Your task to perform on an android device: Add "acer predator" to the cart on newegg.com, then select checkout. Image 0: 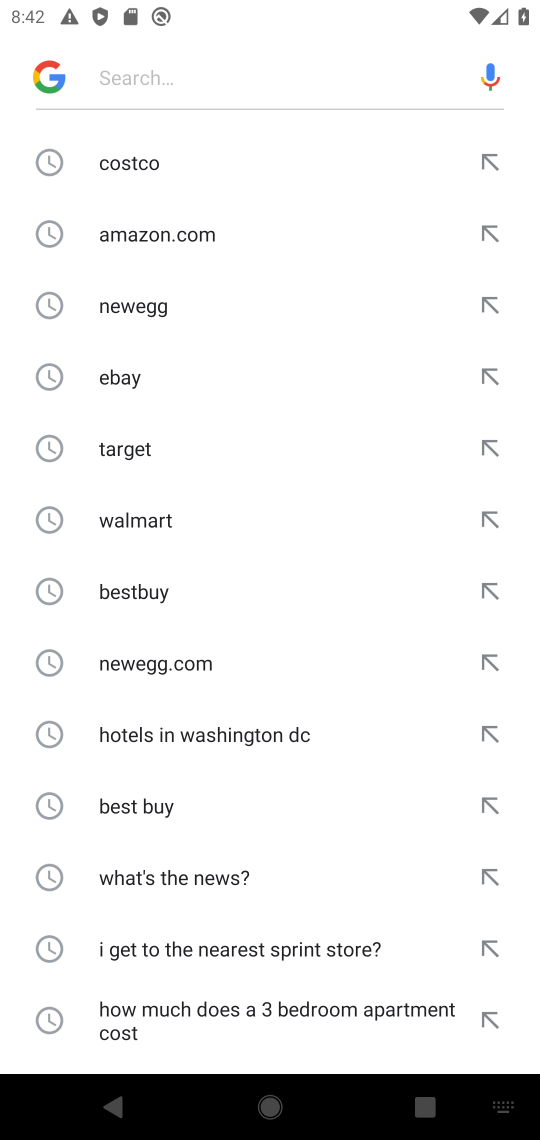
Step 0: press home button
Your task to perform on an android device: Add "acer predator" to the cart on newegg.com, then select checkout. Image 1: 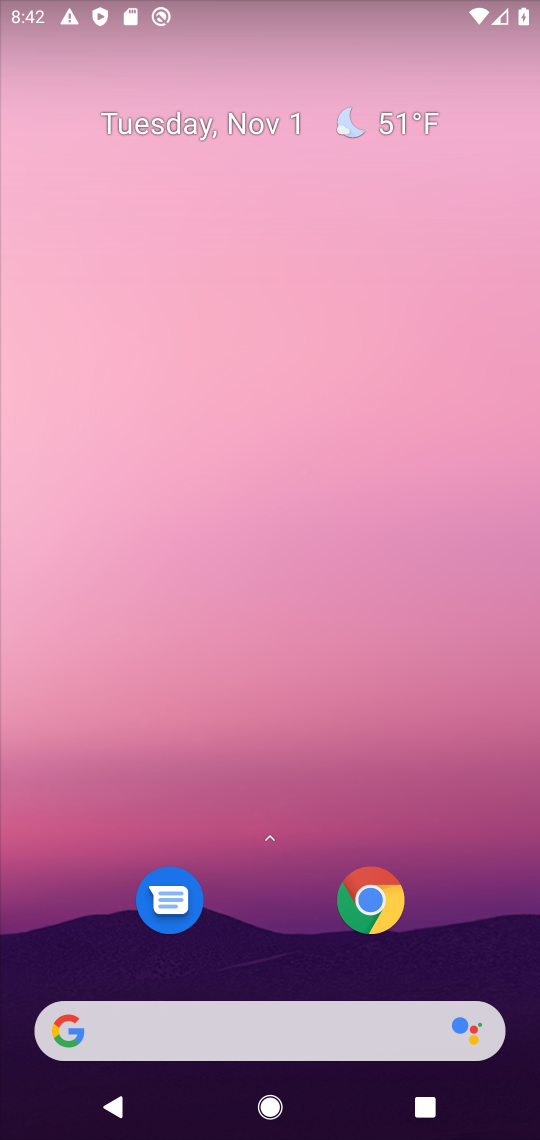
Step 1: drag from (340, 1074) to (435, 49)
Your task to perform on an android device: Add "acer predator" to the cart on newegg.com, then select checkout. Image 2: 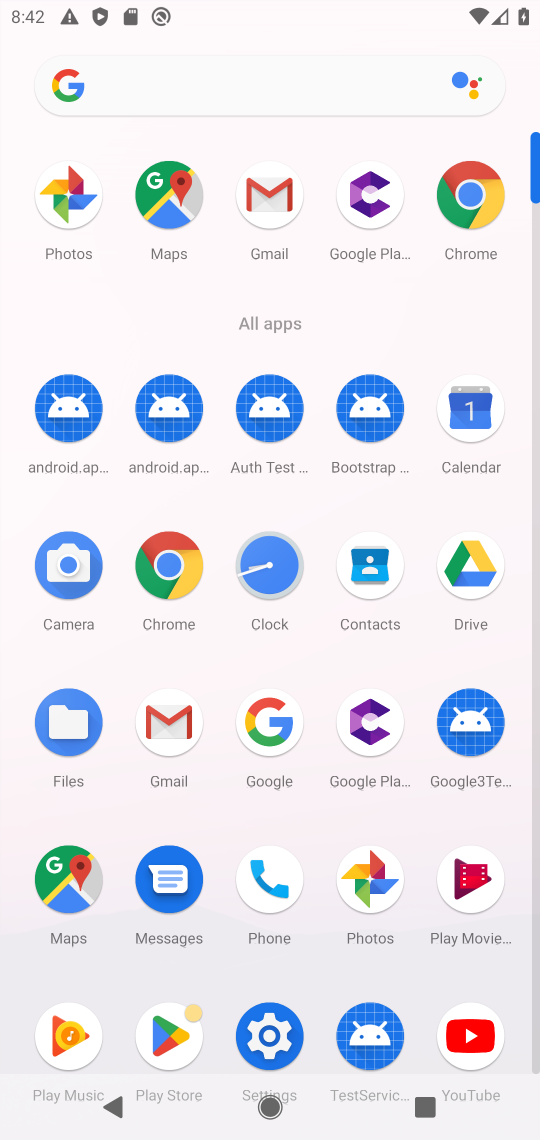
Step 2: click (160, 552)
Your task to perform on an android device: Add "acer predator" to the cart on newegg.com, then select checkout. Image 3: 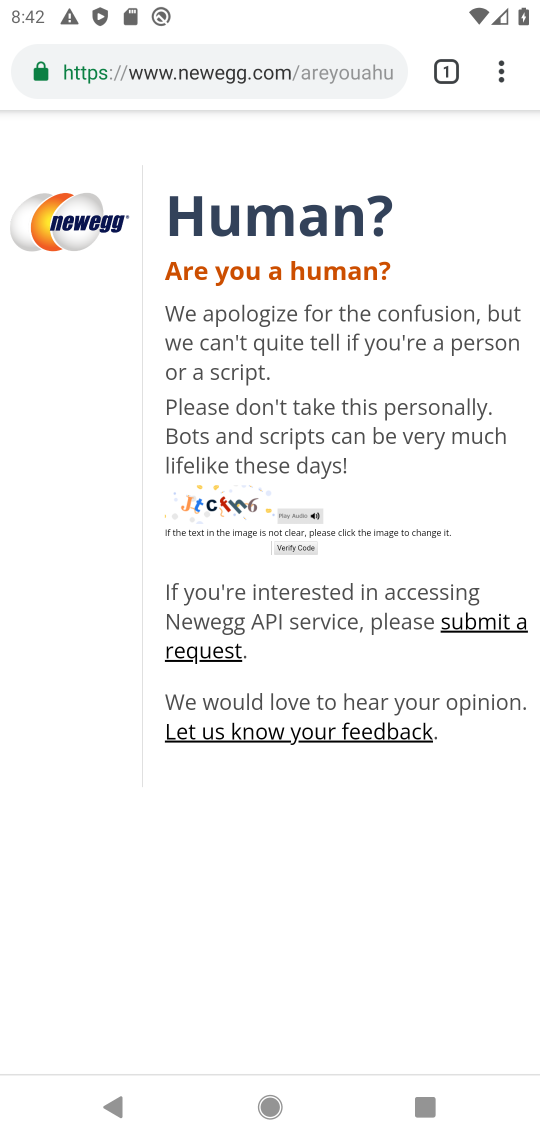
Step 3: click (262, 66)
Your task to perform on an android device: Add "acer predator" to the cart on newegg.com, then select checkout. Image 4: 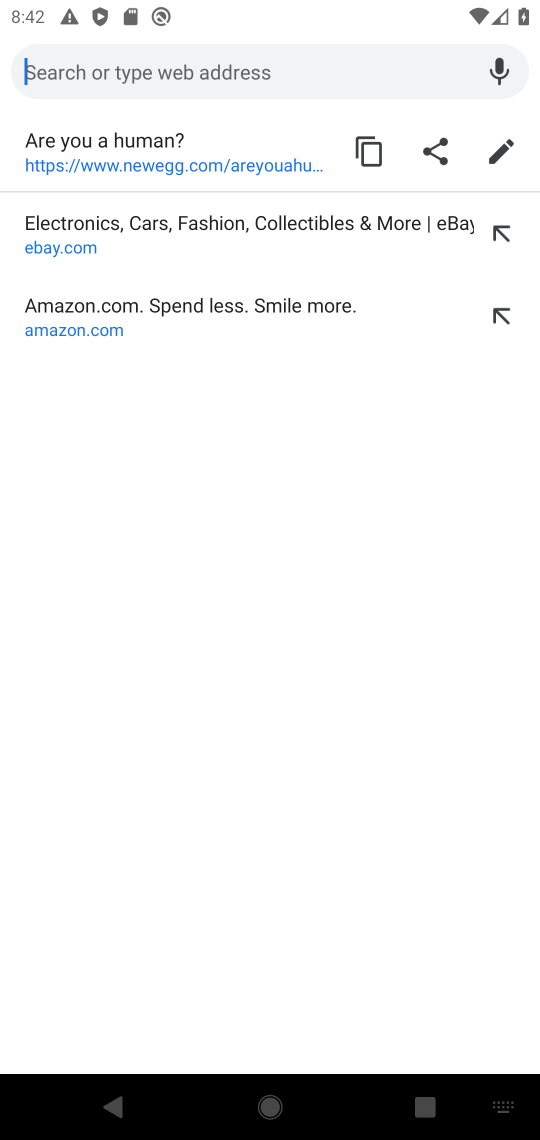
Step 4: type "newegg.com"
Your task to perform on an android device: Add "acer predator" to the cart on newegg.com, then select checkout. Image 5: 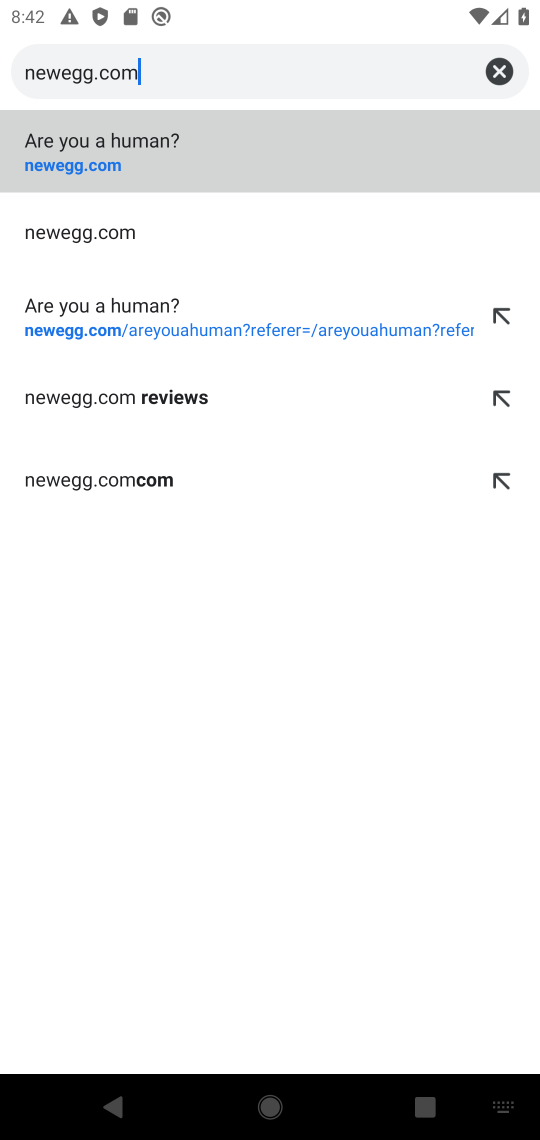
Step 5: click (61, 161)
Your task to perform on an android device: Add "acer predator" to the cart on newegg.com, then select checkout. Image 6: 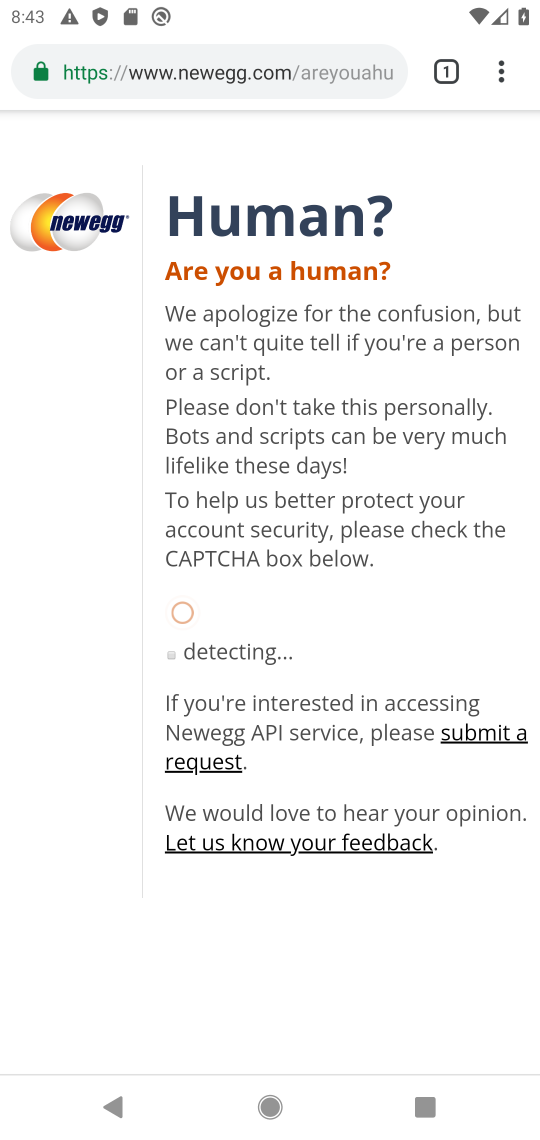
Step 6: task complete